Your task to perform on an android device: Show me productivity apps on the Play Store Image 0: 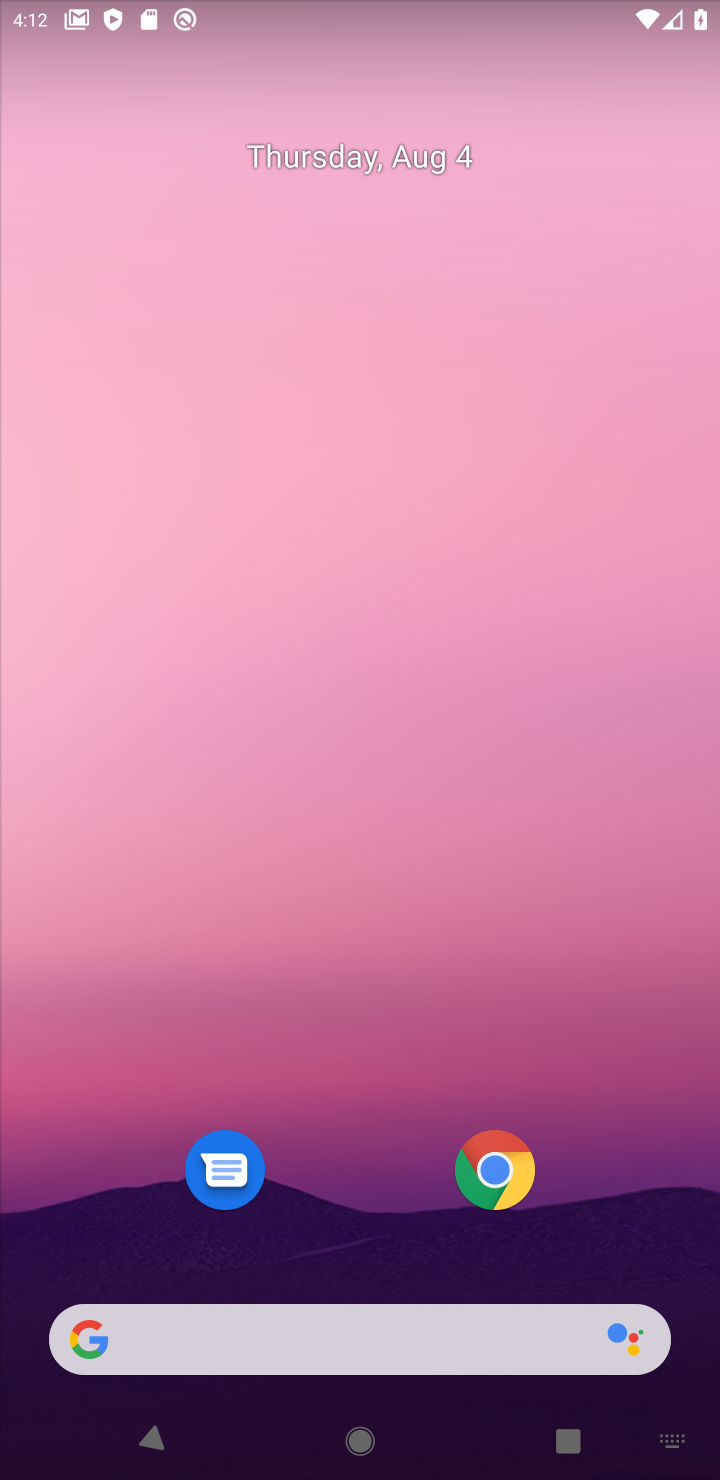
Step 0: drag from (634, 1216) to (508, 327)
Your task to perform on an android device: Show me productivity apps on the Play Store Image 1: 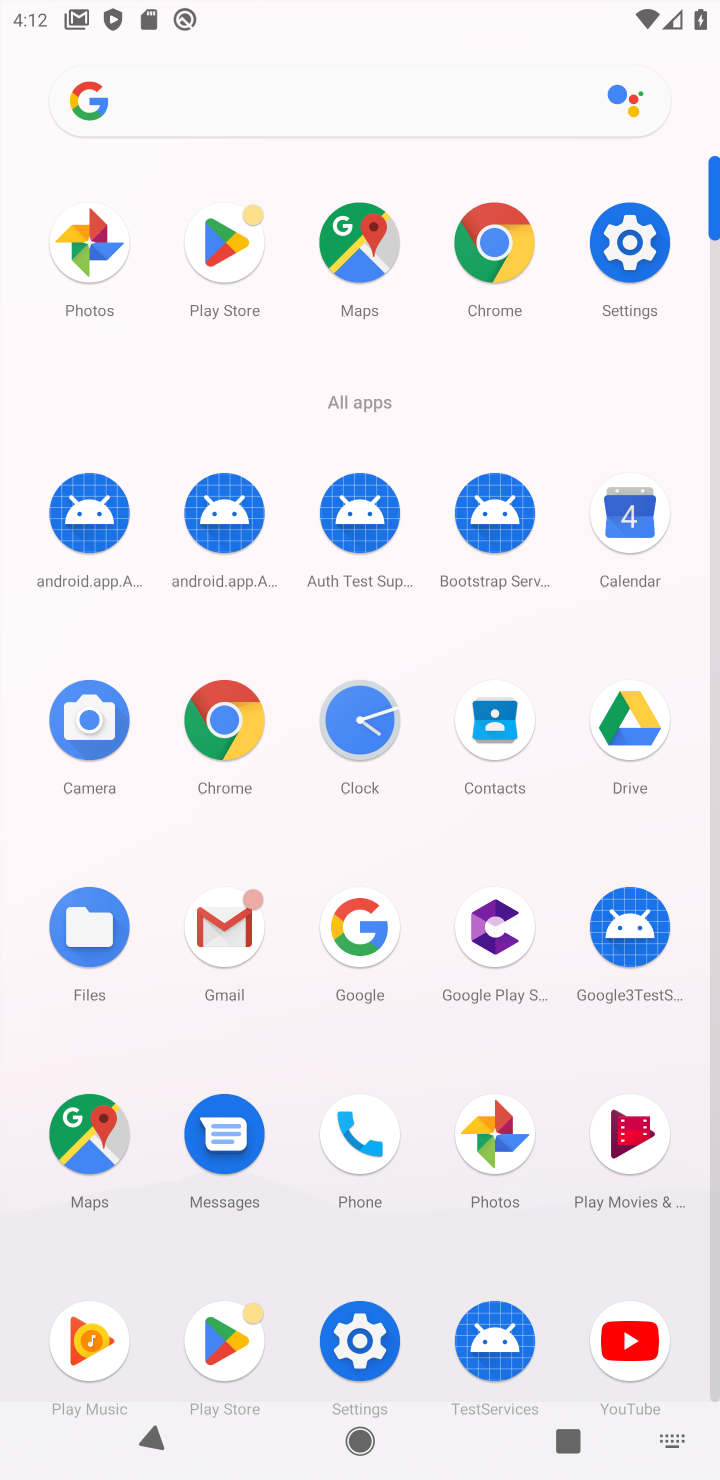
Step 1: click (224, 258)
Your task to perform on an android device: Show me productivity apps on the Play Store Image 2: 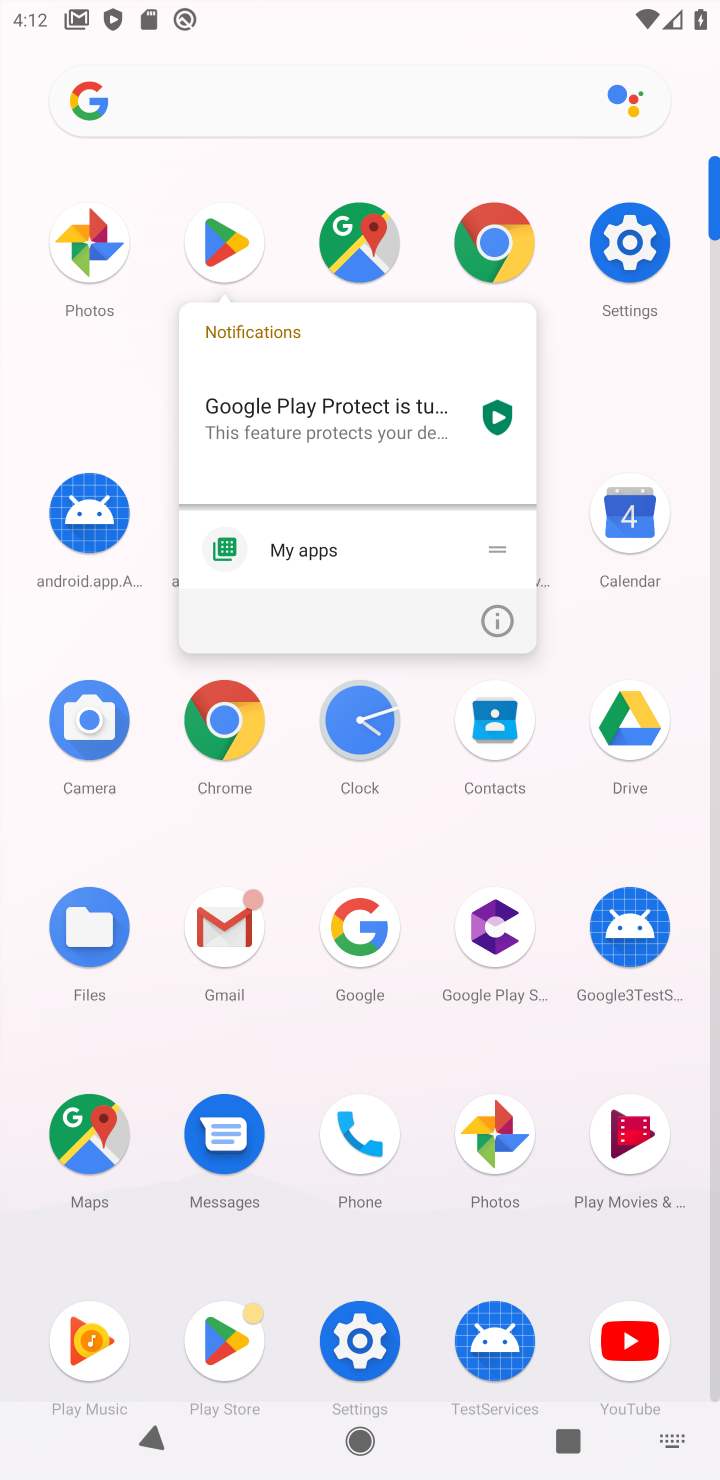
Step 2: click (224, 258)
Your task to perform on an android device: Show me productivity apps on the Play Store Image 3: 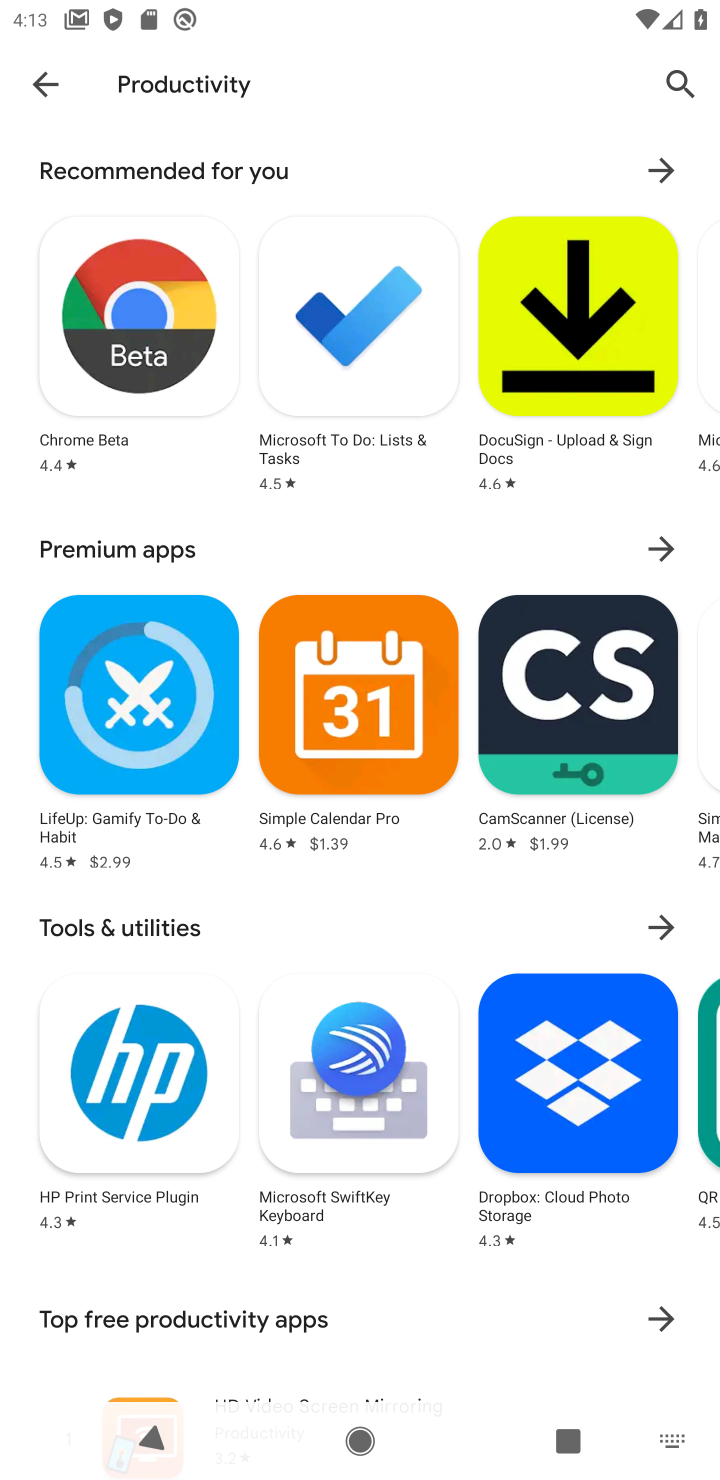
Step 3: task complete